Your task to perform on an android device: open app "Fetch Rewards" Image 0: 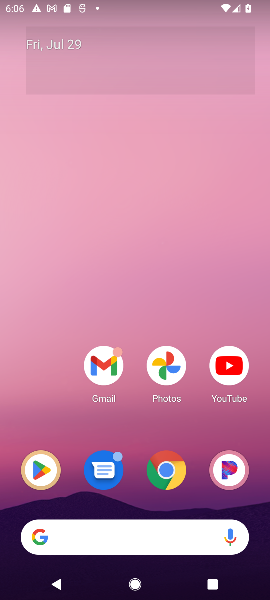
Step 0: drag from (191, 428) to (181, 92)
Your task to perform on an android device: open app "Fetch Rewards" Image 1: 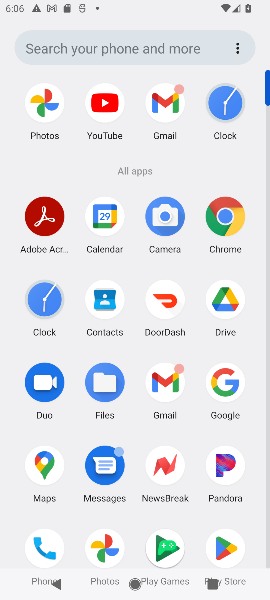
Step 1: click (227, 553)
Your task to perform on an android device: open app "Fetch Rewards" Image 2: 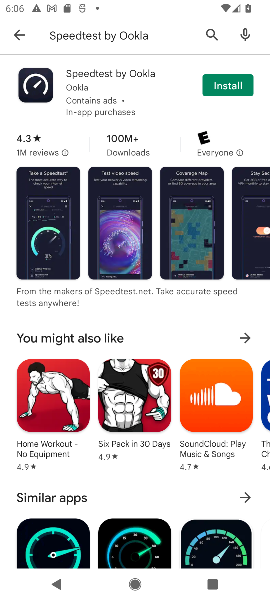
Step 2: click (96, 28)
Your task to perform on an android device: open app "Fetch Rewards" Image 3: 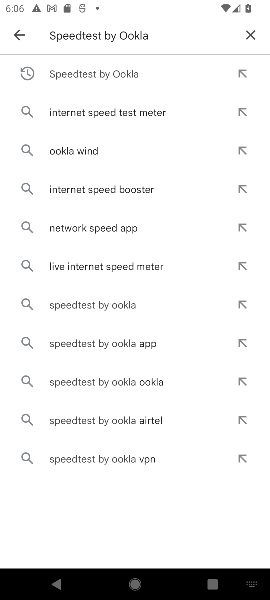
Step 3: click (249, 42)
Your task to perform on an android device: open app "Fetch Rewards" Image 4: 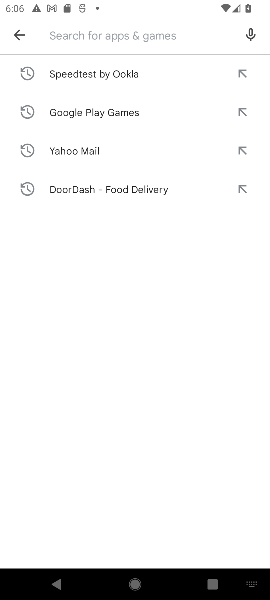
Step 4: type "Fetch Rewards"
Your task to perform on an android device: open app "Fetch Rewards" Image 5: 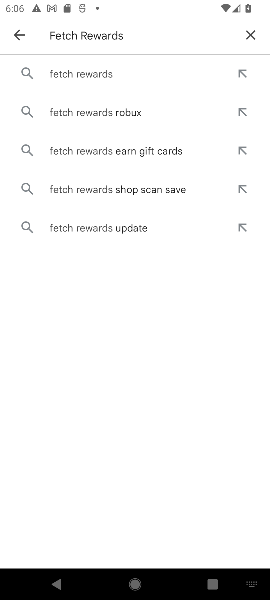
Step 5: press enter
Your task to perform on an android device: open app "Fetch Rewards" Image 6: 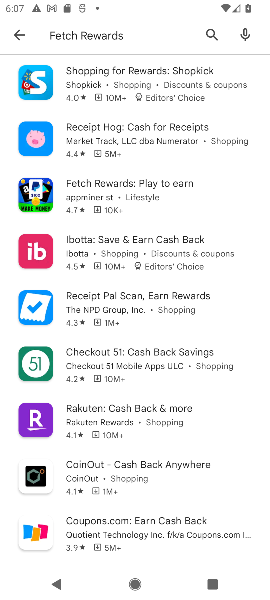
Step 6: task complete